Your task to perform on an android device: manage bookmarks in the chrome app Image 0: 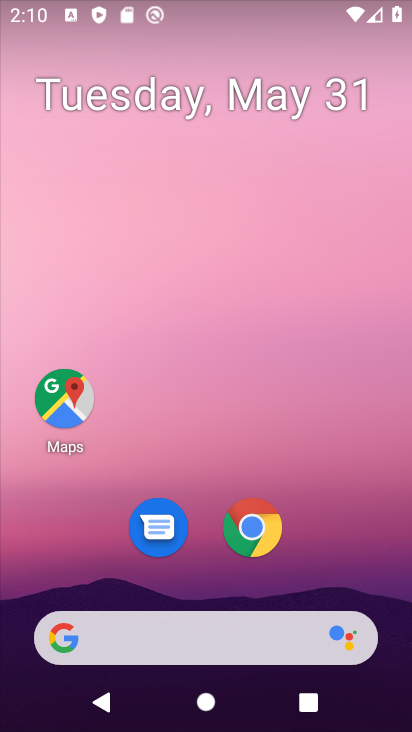
Step 0: click (251, 526)
Your task to perform on an android device: manage bookmarks in the chrome app Image 1: 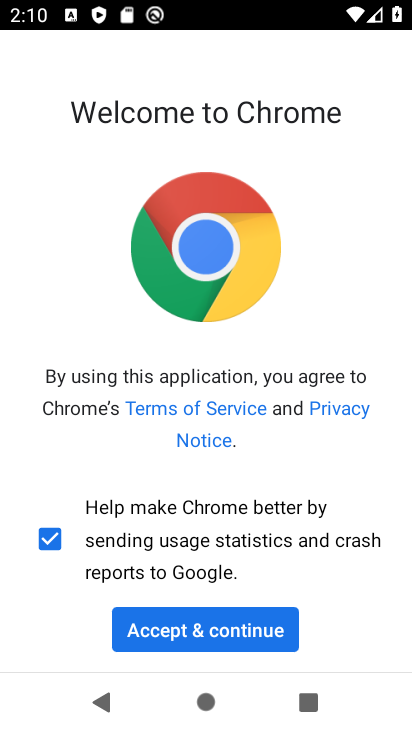
Step 1: click (197, 632)
Your task to perform on an android device: manage bookmarks in the chrome app Image 2: 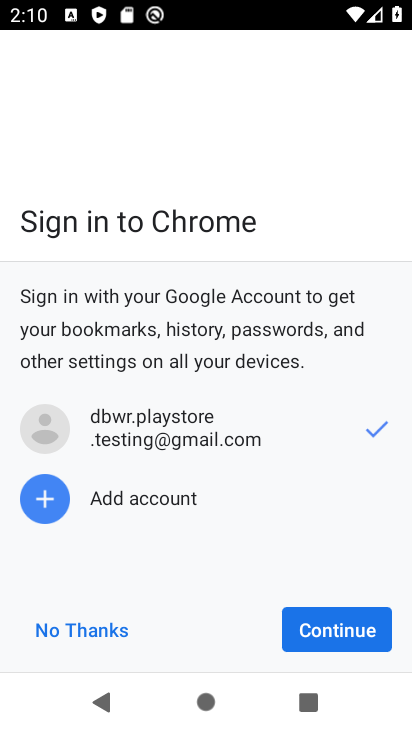
Step 2: click (345, 630)
Your task to perform on an android device: manage bookmarks in the chrome app Image 3: 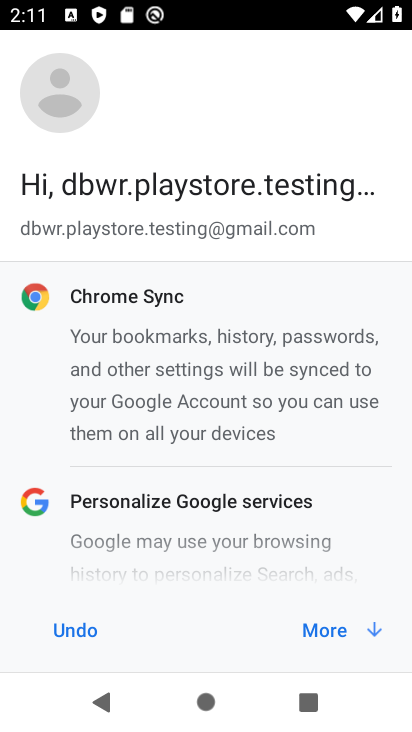
Step 3: click (340, 639)
Your task to perform on an android device: manage bookmarks in the chrome app Image 4: 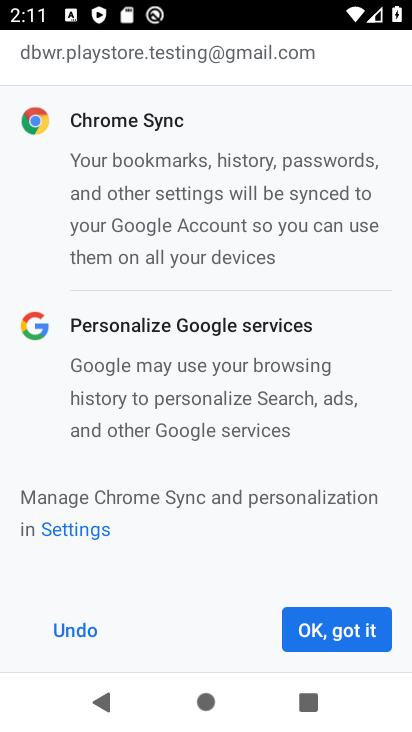
Step 4: click (340, 629)
Your task to perform on an android device: manage bookmarks in the chrome app Image 5: 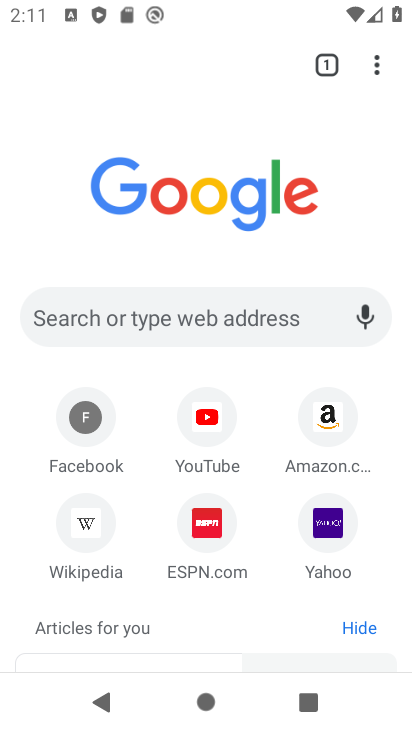
Step 5: click (378, 73)
Your task to perform on an android device: manage bookmarks in the chrome app Image 6: 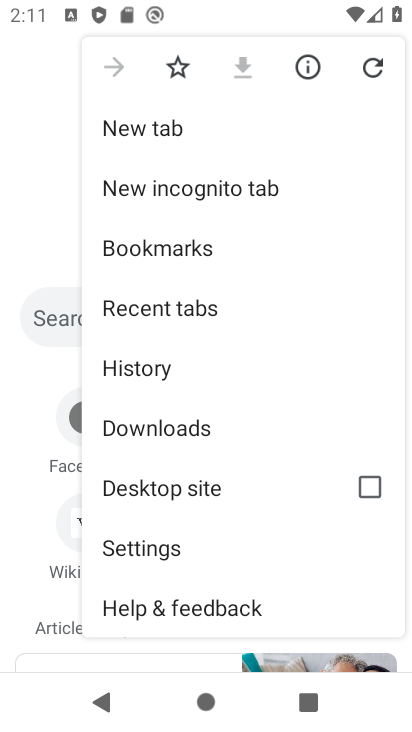
Step 6: click (156, 261)
Your task to perform on an android device: manage bookmarks in the chrome app Image 7: 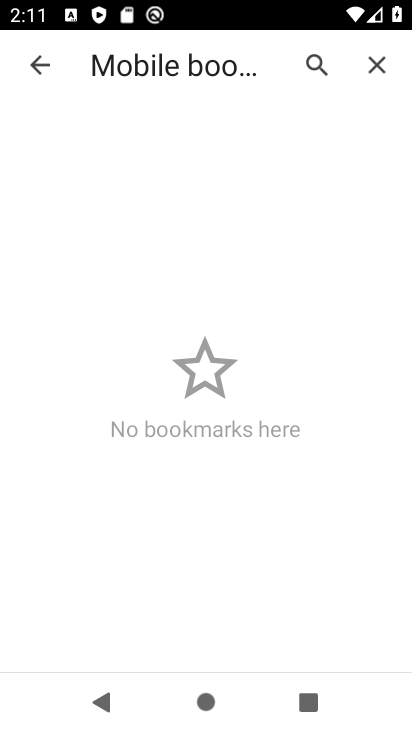
Step 7: task complete